Your task to perform on an android device: install app "Google Play Music" Image 0: 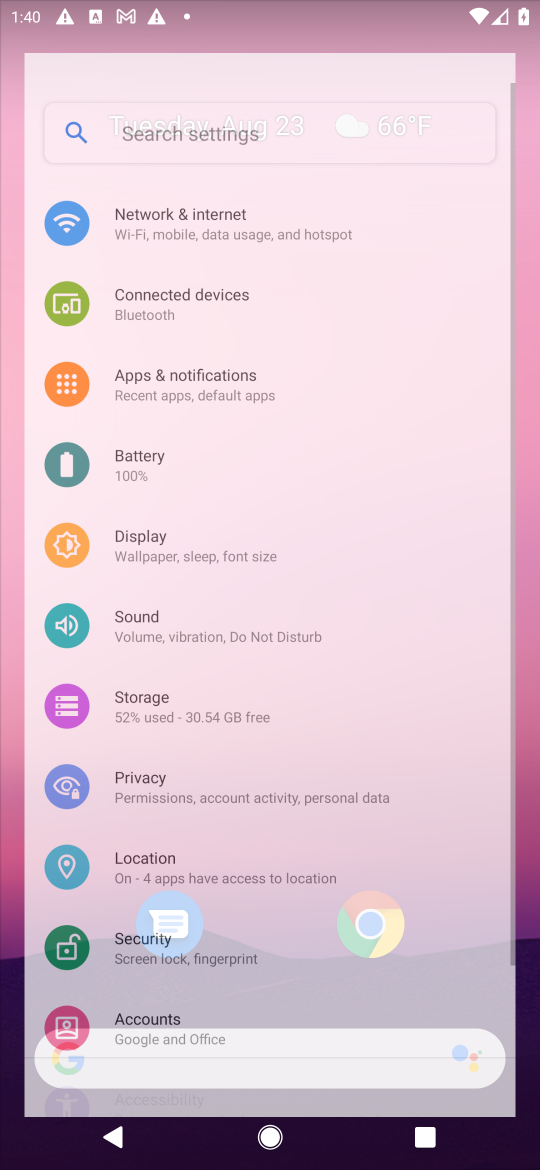
Step 0: press home button
Your task to perform on an android device: install app "Google Play Music" Image 1: 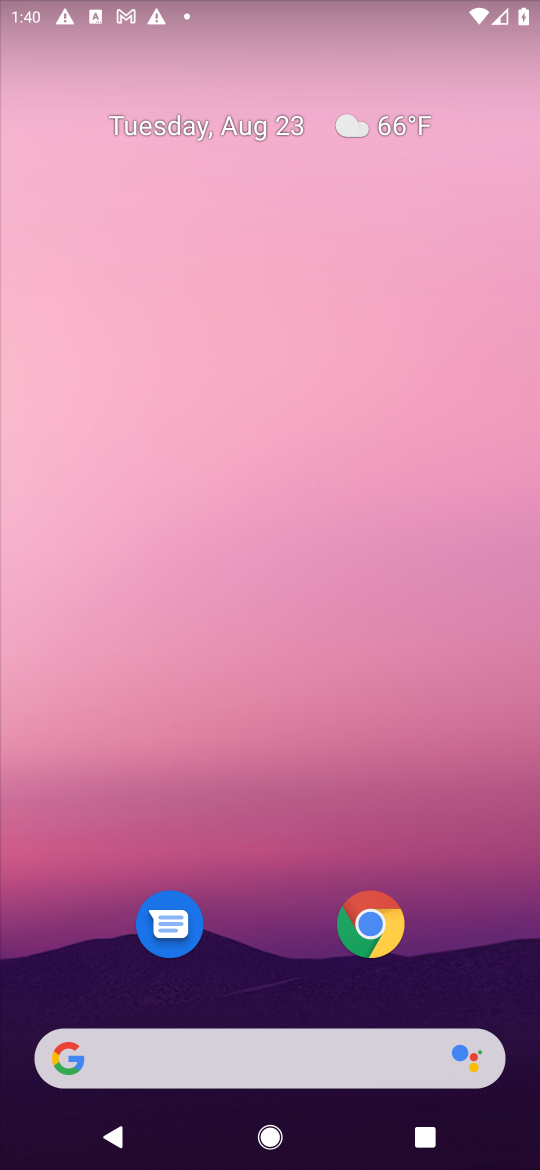
Step 1: drag from (467, 983) to (483, 84)
Your task to perform on an android device: install app "Google Play Music" Image 2: 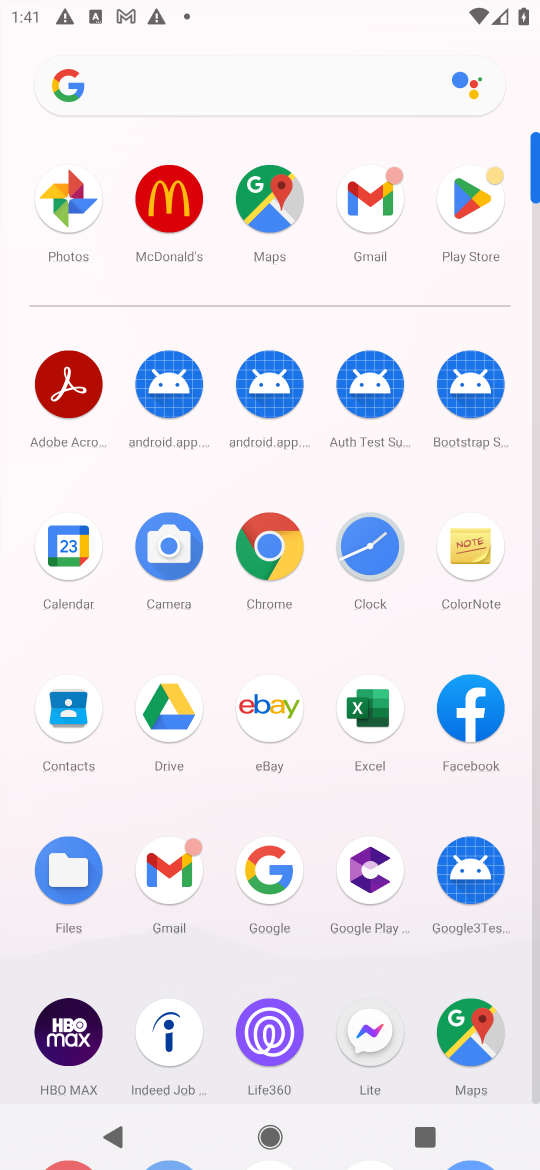
Step 2: click (470, 201)
Your task to perform on an android device: install app "Google Play Music" Image 3: 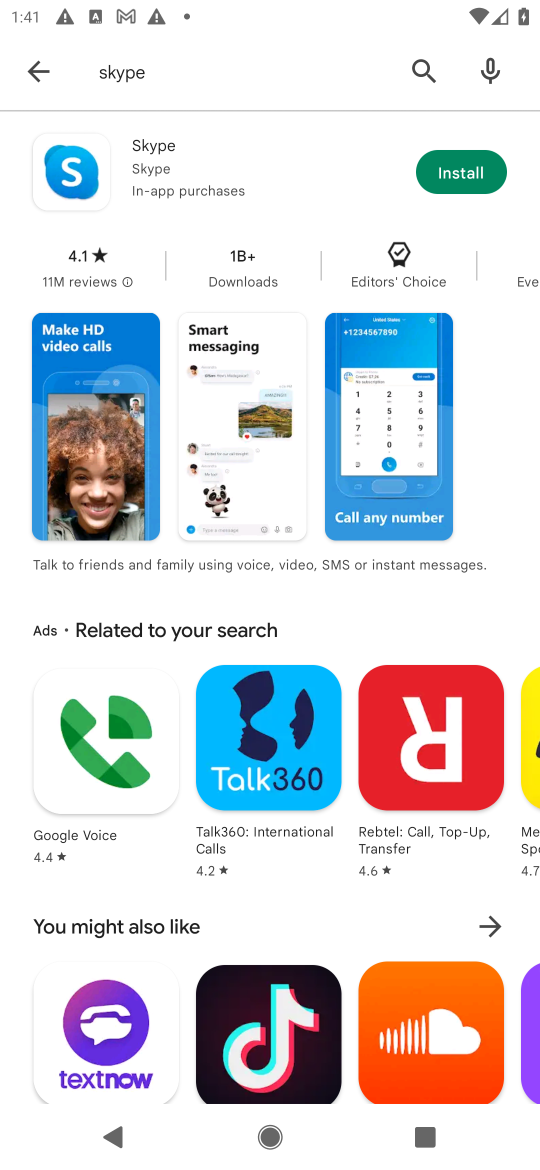
Step 3: press back button
Your task to perform on an android device: install app "Google Play Music" Image 4: 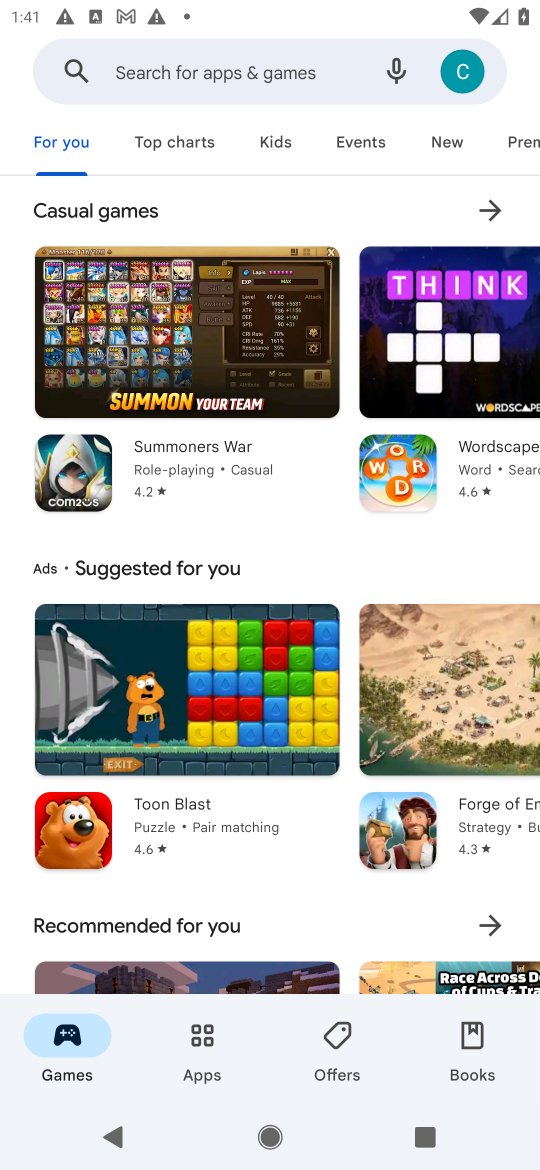
Step 4: click (256, 67)
Your task to perform on an android device: install app "Google Play Music" Image 5: 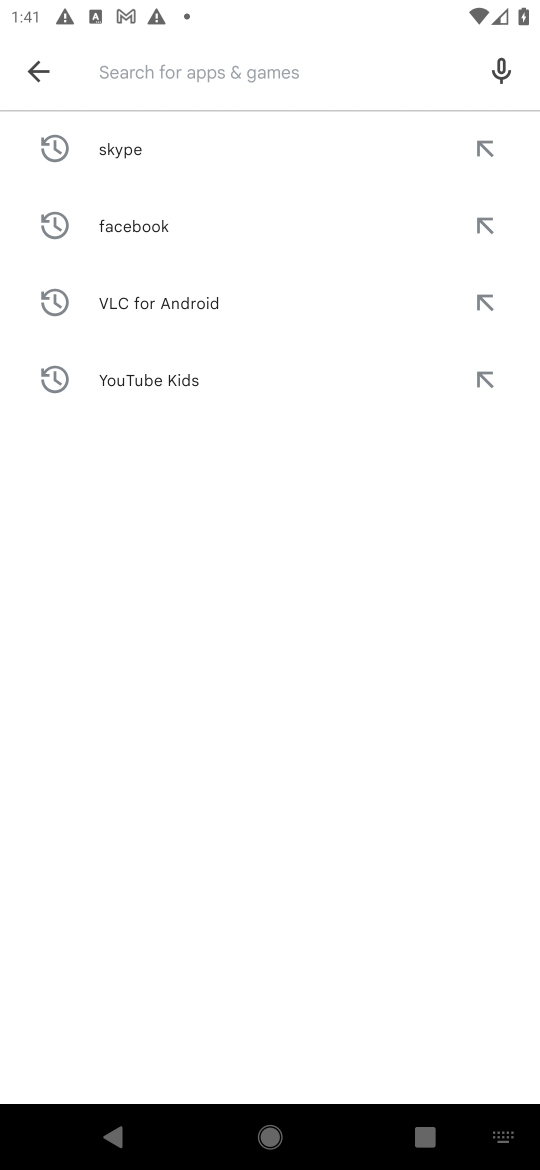
Step 5: type "Google Play Music"
Your task to perform on an android device: install app "Google Play Music" Image 6: 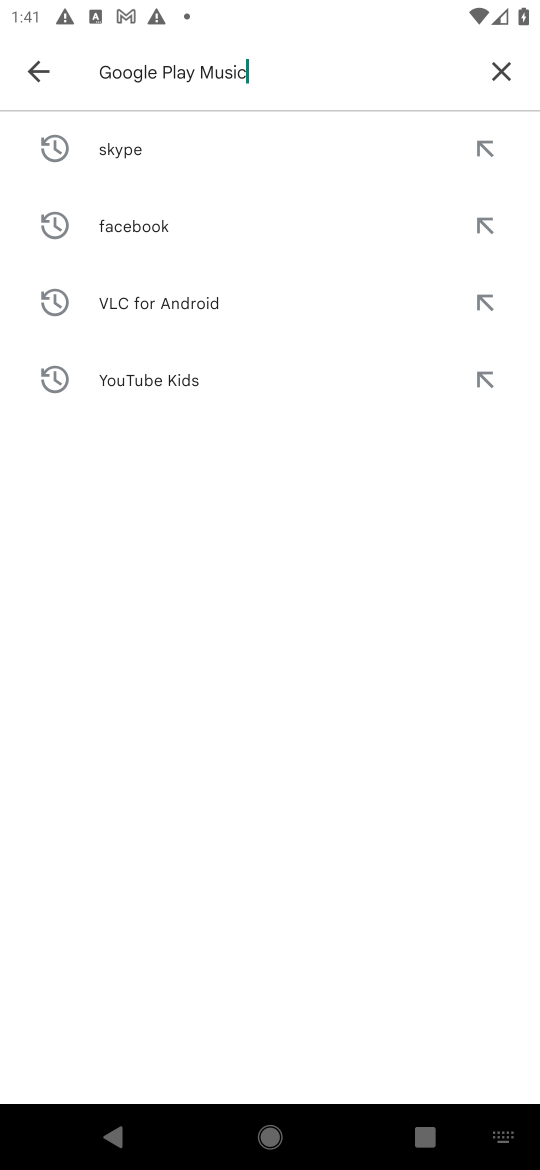
Step 6: press enter
Your task to perform on an android device: install app "Google Play Music" Image 7: 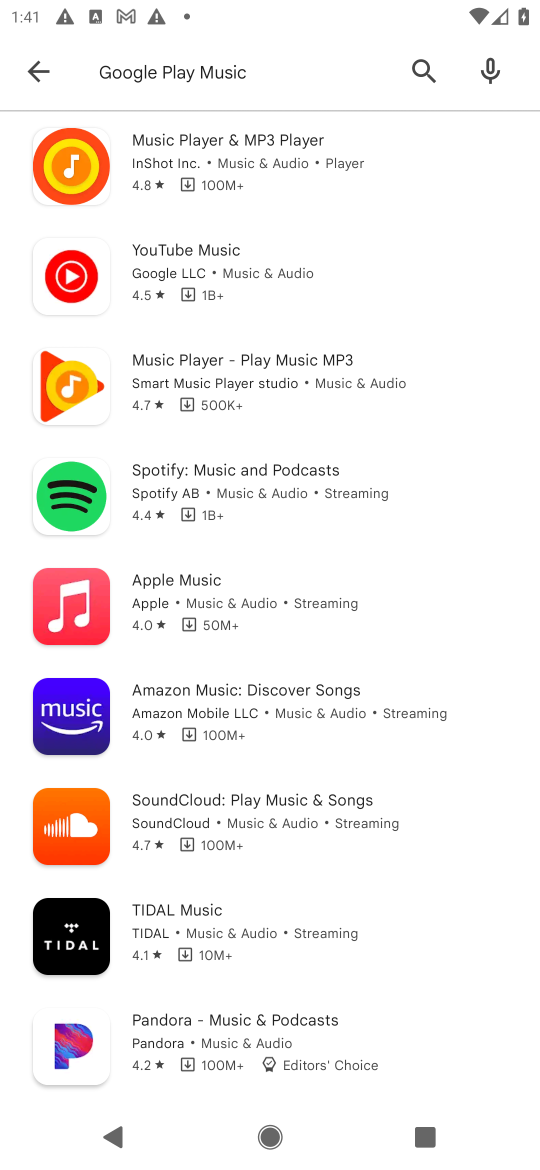
Step 7: click (293, 143)
Your task to perform on an android device: install app "Google Play Music" Image 8: 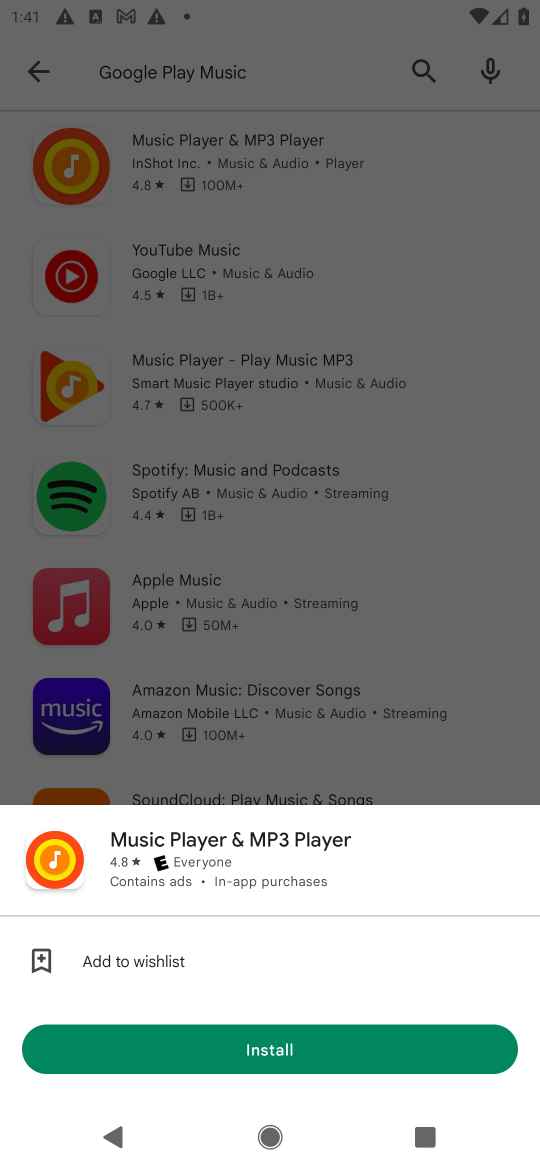
Step 8: click (285, 1040)
Your task to perform on an android device: install app "Google Play Music" Image 9: 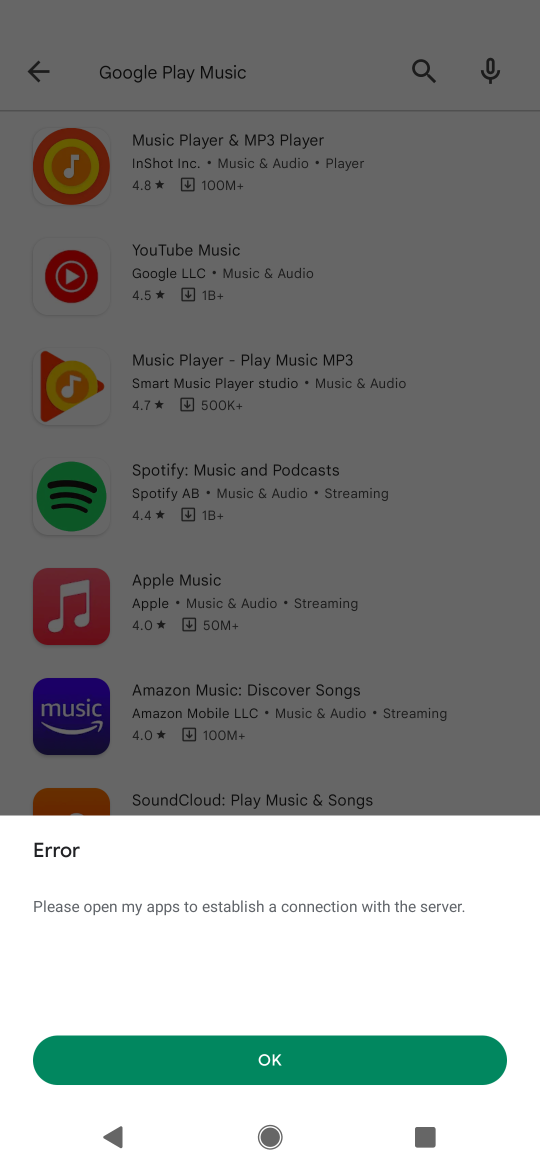
Step 9: task complete